Your task to perform on an android device: remove spam from my inbox in the gmail app Image 0: 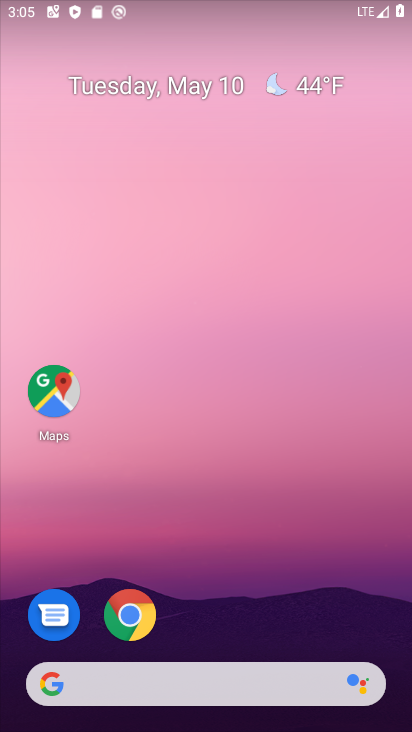
Step 0: drag from (263, 609) to (330, 27)
Your task to perform on an android device: remove spam from my inbox in the gmail app Image 1: 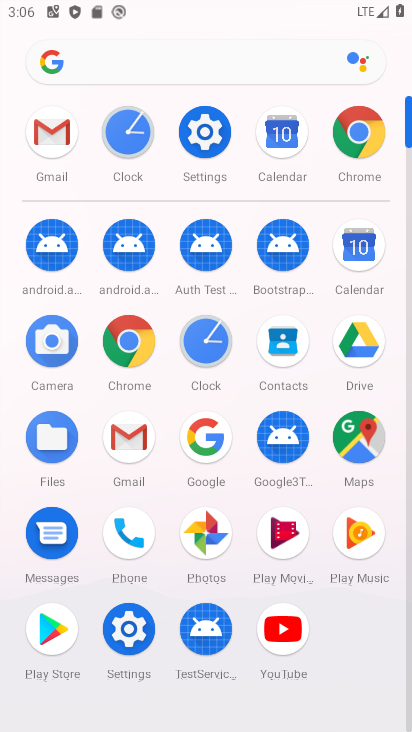
Step 1: click (34, 133)
Your task to perform on an android device: remove spam from my inbox in the gmail app Image 2: 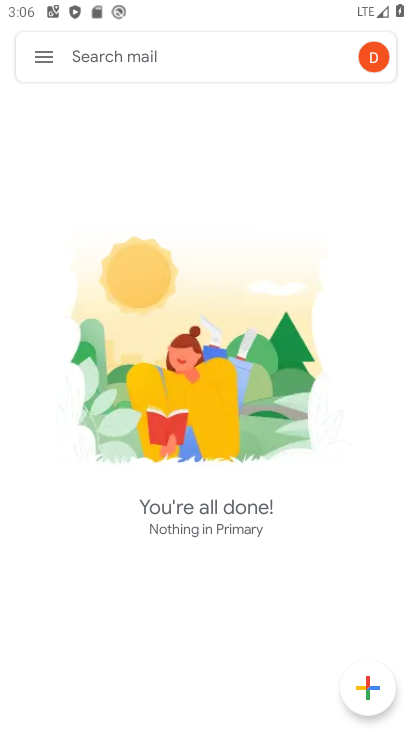
Step 2: task complete